Your task to perform on an android device: Open Google Chrome and open the bookmarks view Image 0: 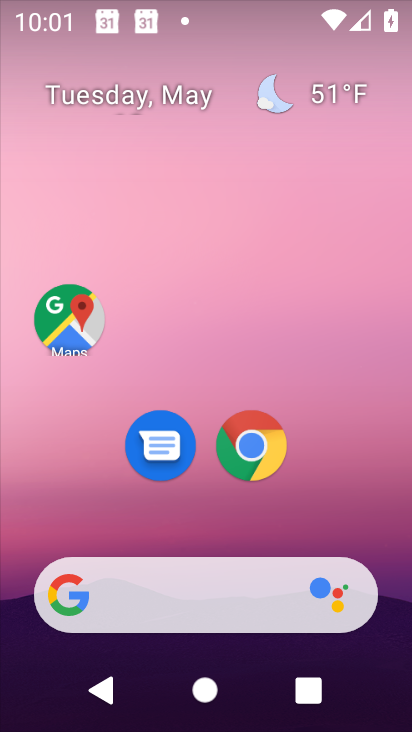
Step 0: click (246, 460)
Your task to perform on an android device: Open Google Chrome and open the bookmarks view Image 1: 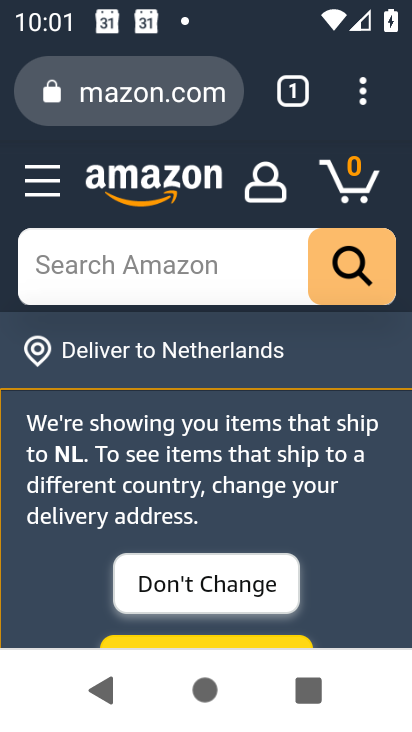
Step 1: drag from (365, 104) to (257, 348)
Your task to perform on an android device: Open Google Chrome and open the bookmarks view Image 2: 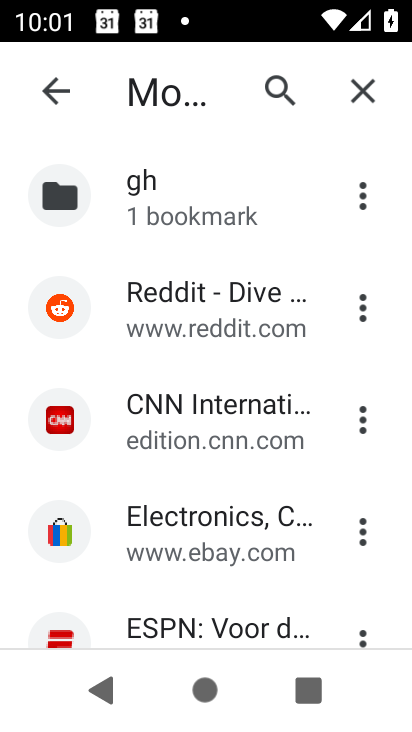
Step 2: click (162, 412)
Your task to perform on an android device: Open Google Chrome and open the bookmarks view Image 3: 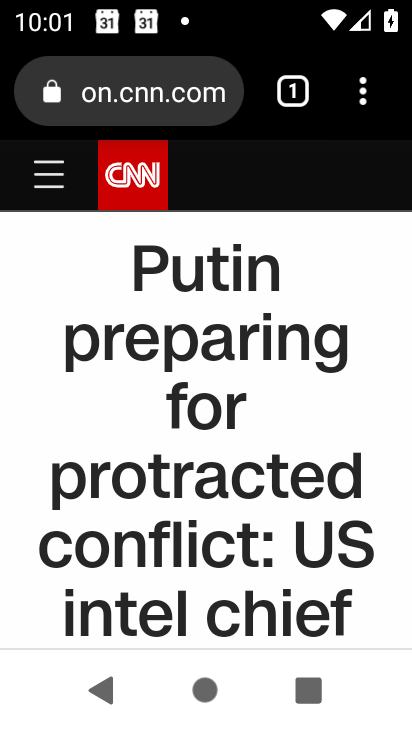
Step 3: task complete